Your task to perform on an android device: install app "Indeed Job Search" Image 0: 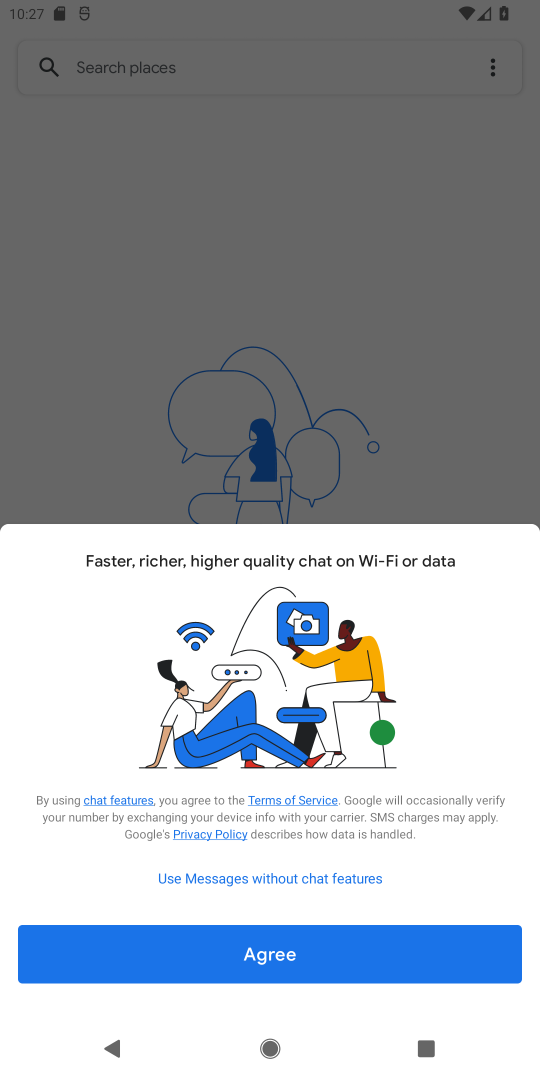
Step 0: press back button
Your task to perform on an android device: install app "Indeed Job Search" Image 1: 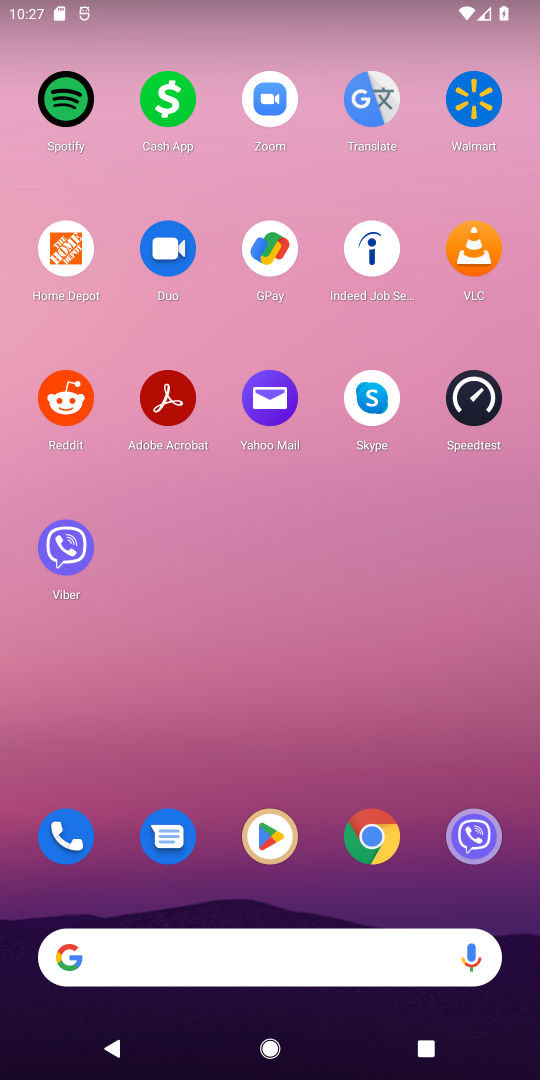
Step 1: click (275, 840)
Your task to perform on an android device: install app "Indeed Job Search" Image 2: 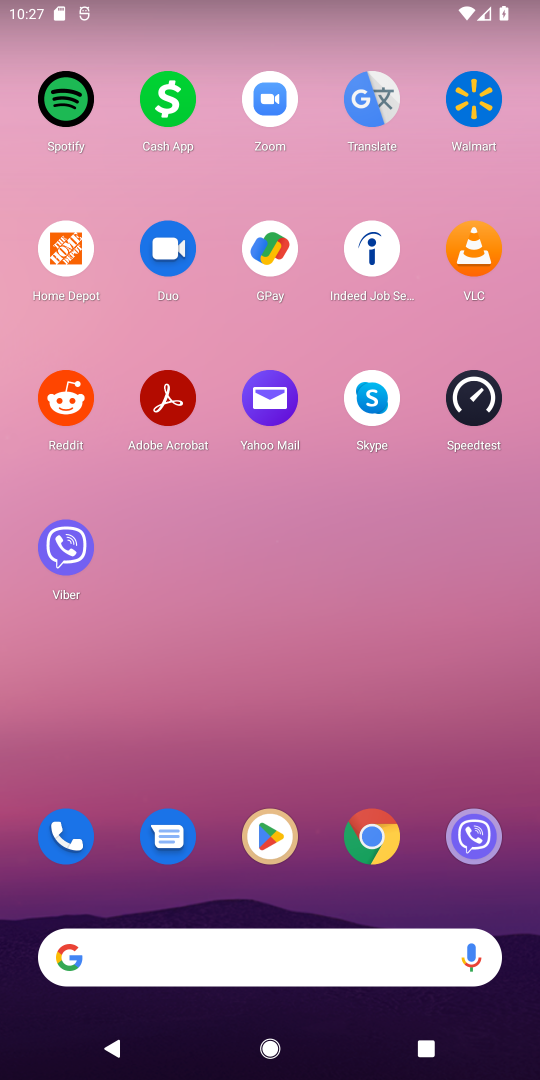
Step 2: click (270, 835)
Your task to perform on an android device: install app "Indeed Job Search" Image 3: 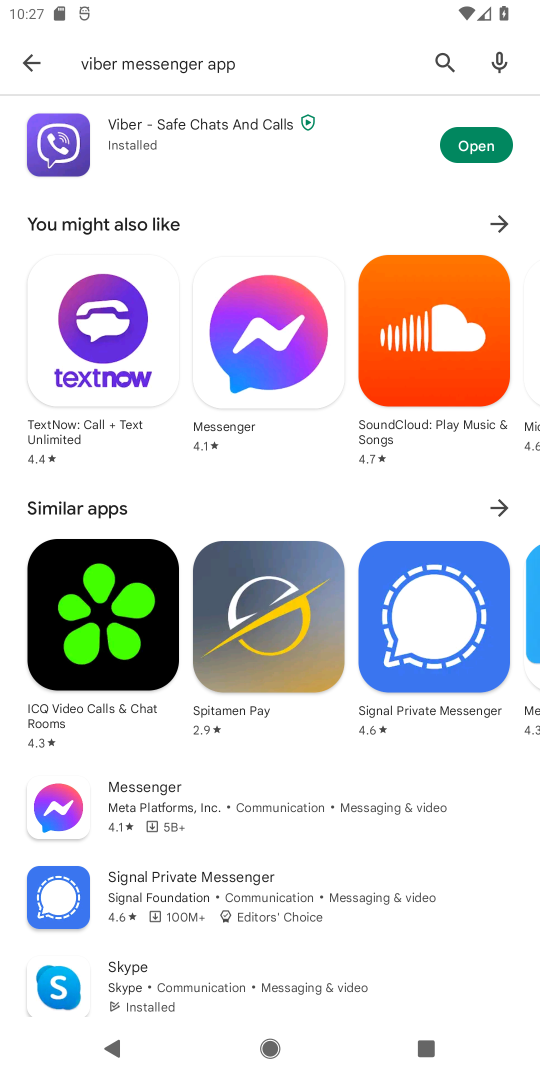
Step 3: click (437, 60)
Your task to perform on an android device: install app "Indeed Job Search" Image 4: 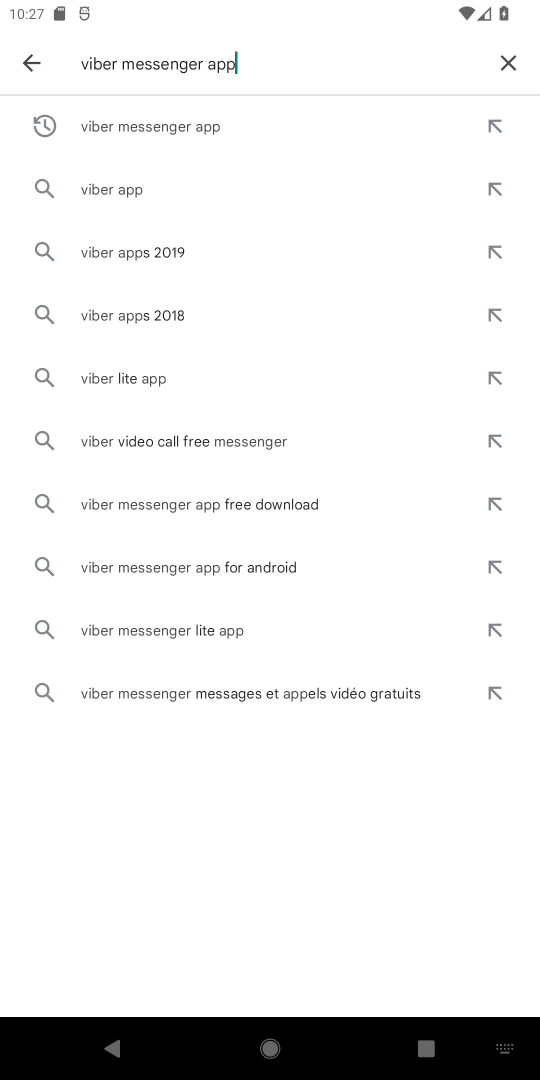
Step 4: click (500, 53)
Your task to perform on an android device: install app "Indeed Job Search" Image 5: 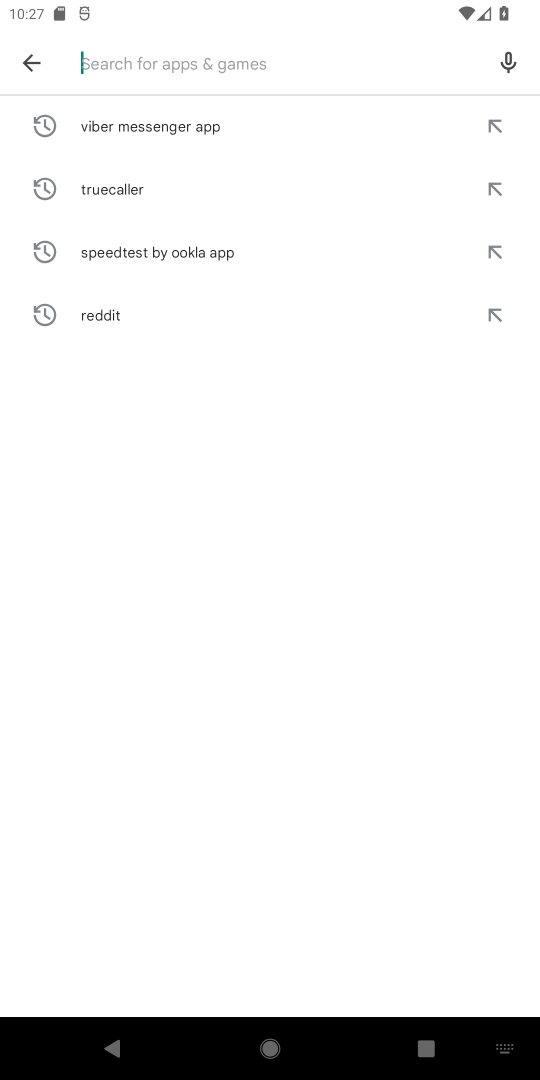
Step 5: type "Indeed Job Searc"
Your task to perform on an android device: install app "Indeed Job Search" Image 6: 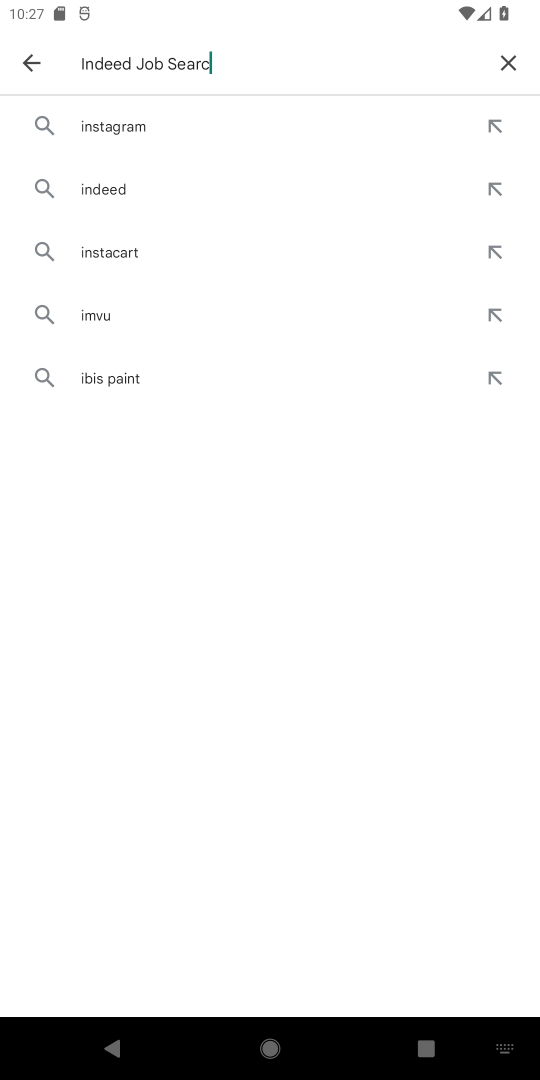
Step 6: type ""
Your task to perform on an android device: install app "Indeed Job Search" Image 7: 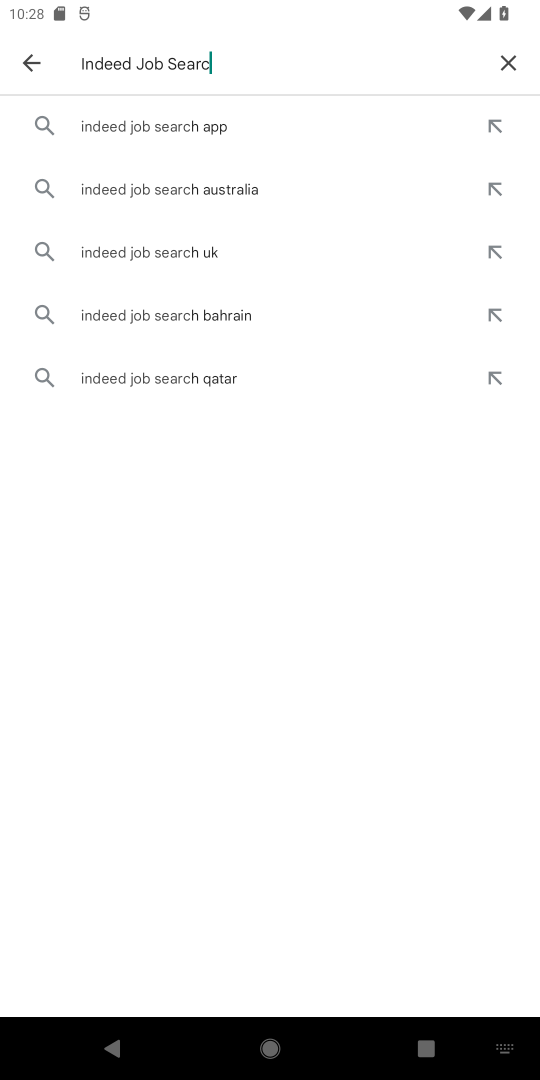
Step 7: click (215, 126)
Your task to perform on an android device: install app "Indeed Job Search" Image 8: 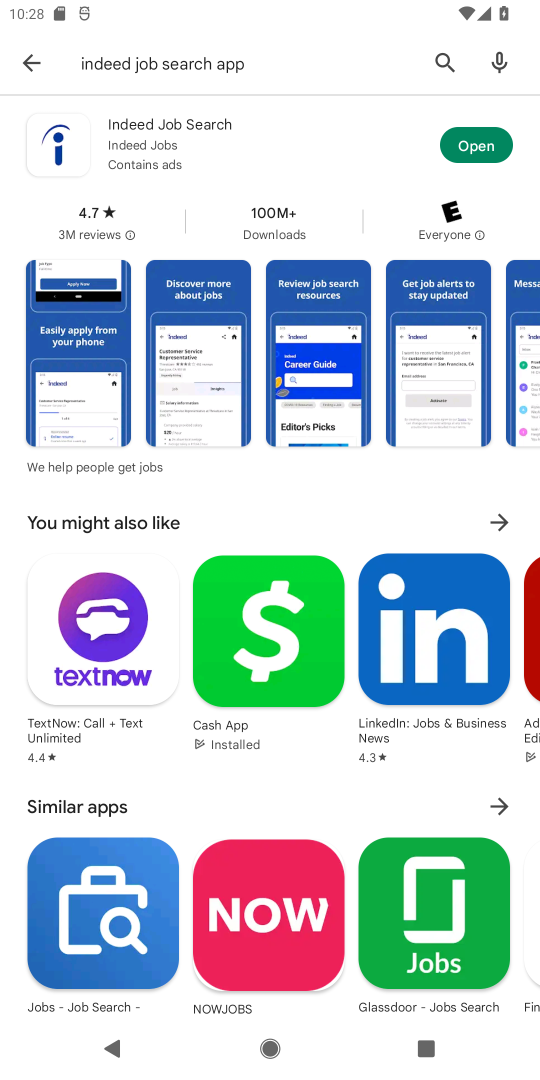
Step 8: task complete